Your task to perform on an android device: Search for Mexican restaurants on Maps Image 0: 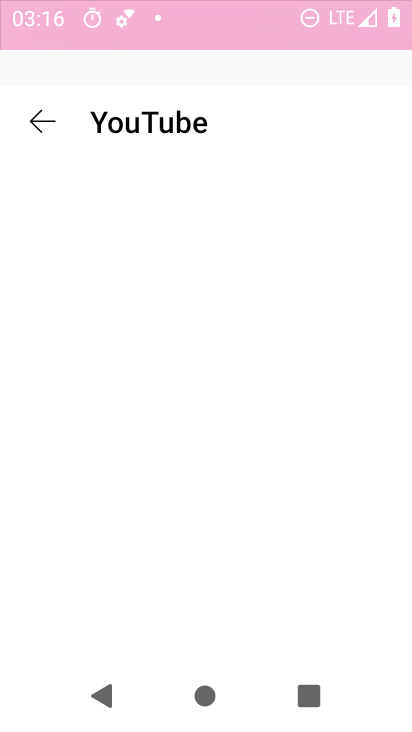
Step 0: drag from (277, 303) to (154, 17)
Your task to perform on an android device: Search for Mexican restaurants on Maps Image 1: 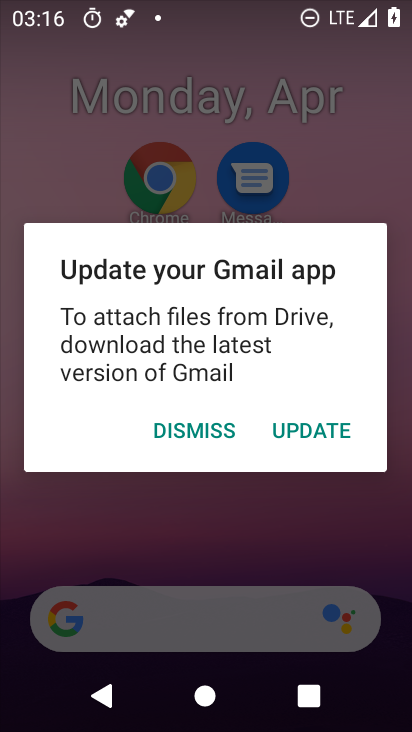
Step 1: press home button
Your task to perform on an android device: Search for Mexican restaurants on Maps Image 2: 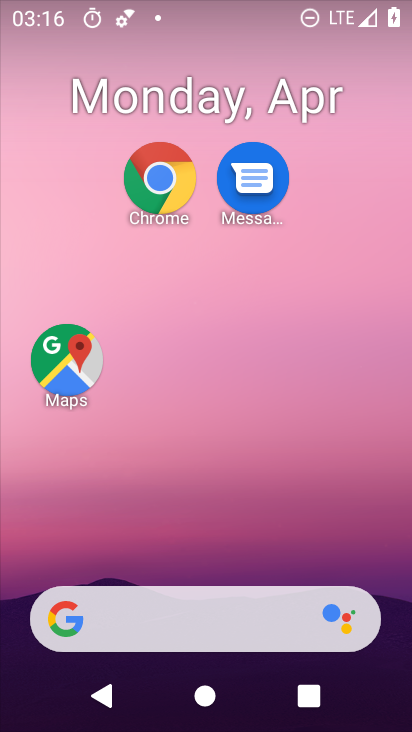
Step 2: drag from (224, 537) to (267, 38)
Your task to perform on an android device: Search for Mexican restaurants on Maps Image 3: 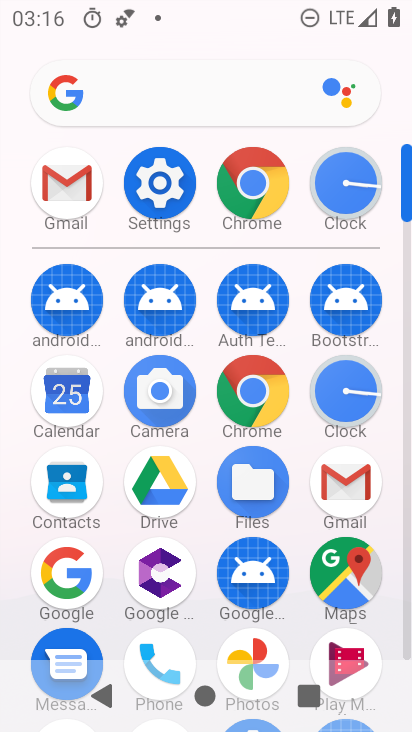
Step 3: click (251, 405)
Your task to perform on an android device: Search for Mexican restaurants on Maps Image 4: 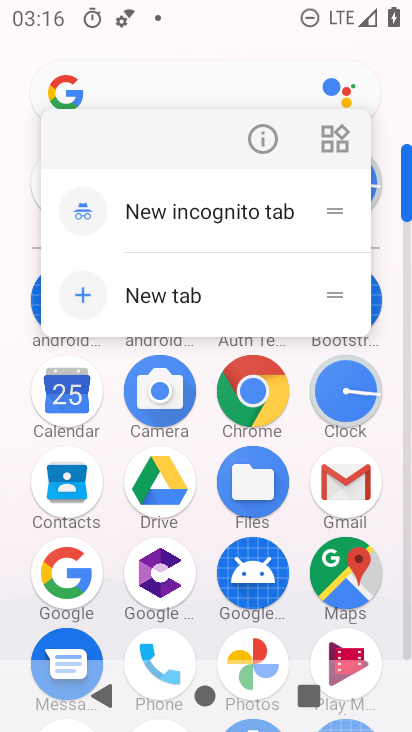
Step 4: click (259, 390)
Your task to perform on an android device: Search for Mexican restaurants on Maps Image 5: 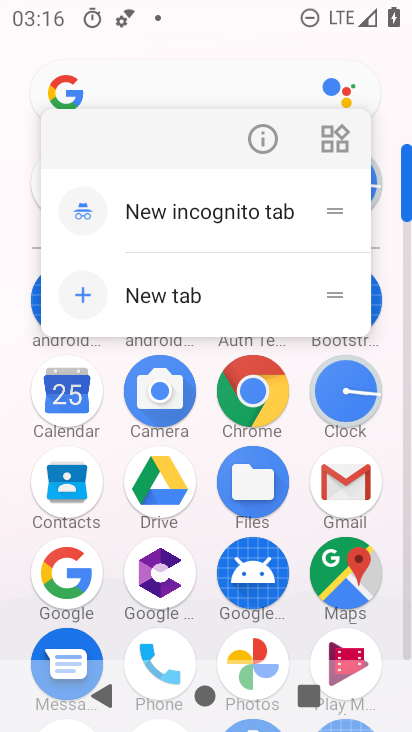
Step 5: click (259, 390)
Your task to perform on an android device: Search for Mexican restaurants on Maps Image 6: 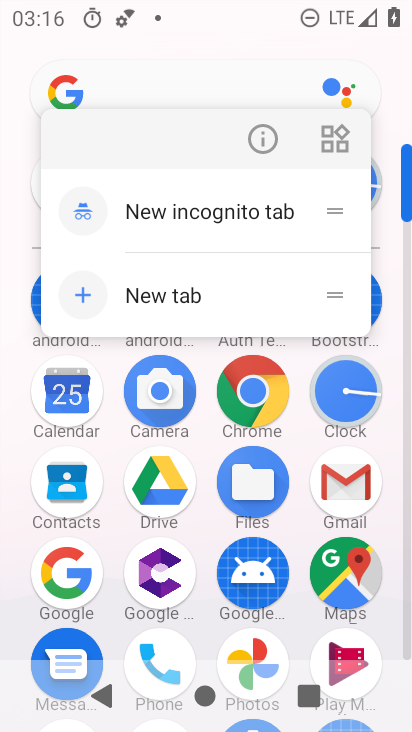
Step 6: click (269, 400)
Your task to perform on an android device: Search for Mexican restaurants on Maps Image 7: 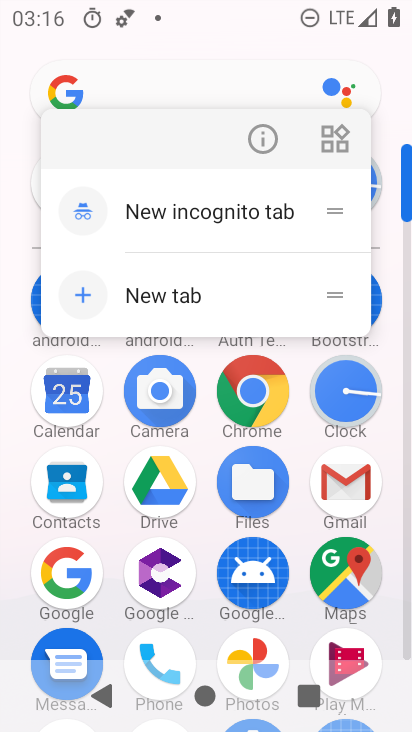
Step 7: click (269, 400)
Your task to perform on an android device: Search for Mexican restaurants on Maps Image 8: 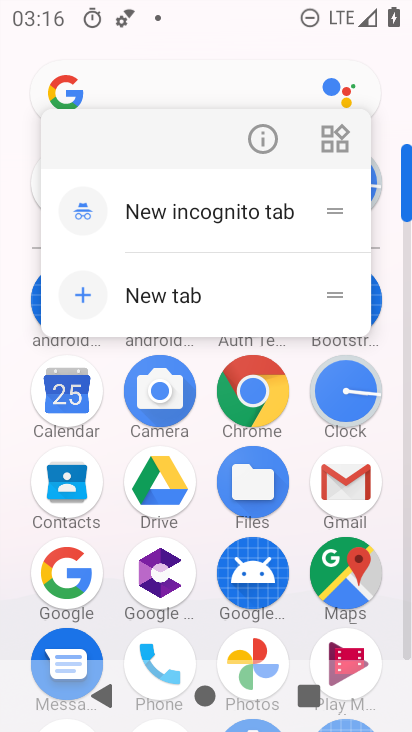
Step 8: click (269, 400)
Your task to perform on an android device: Search for Mexican restaurants on Maps Image 9: 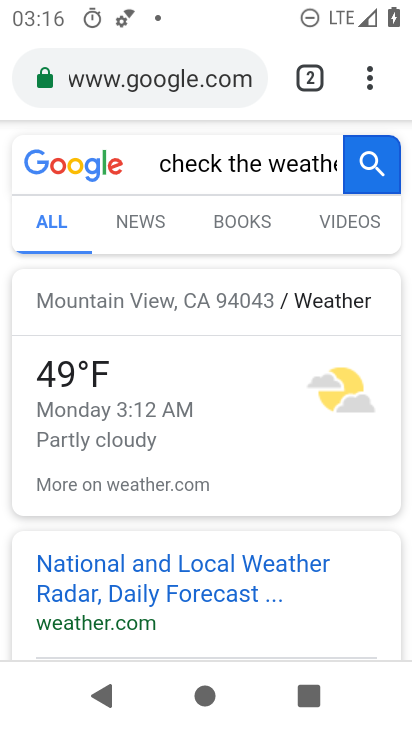
Step 9: press home button
Your task to perform on an android device: Search for Mexican restaurants on Maps Image 10: 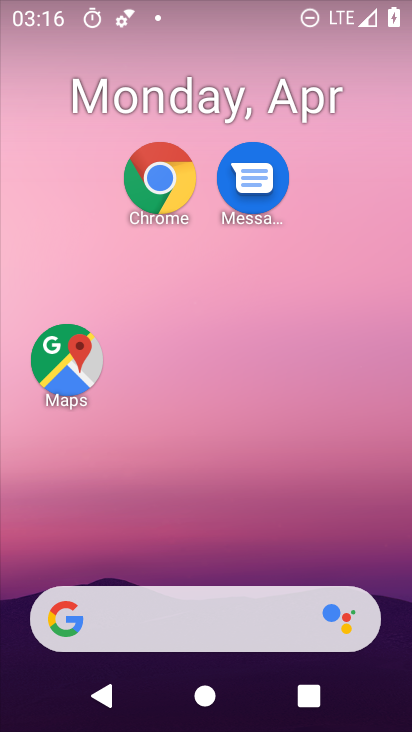
Step 10: drag from (201, 565) to (267, 0)
Your task to perform on an android device: Search for Mexican restaurants on Maps Image 11: 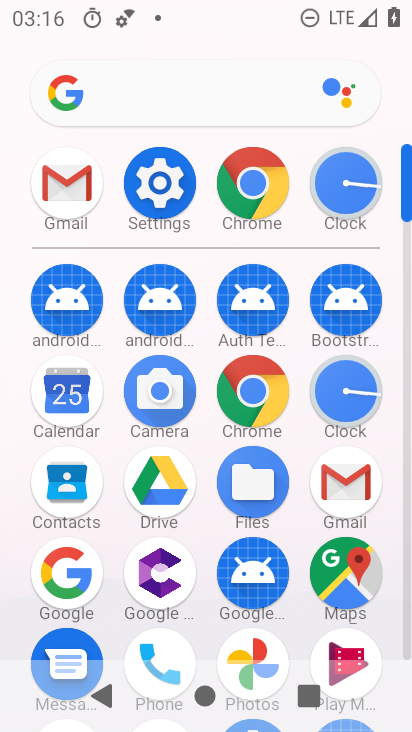
Step 11: click (348, 562)
Your task to perform on an android device: Search for Mexican restaurants on Maps Image 12: 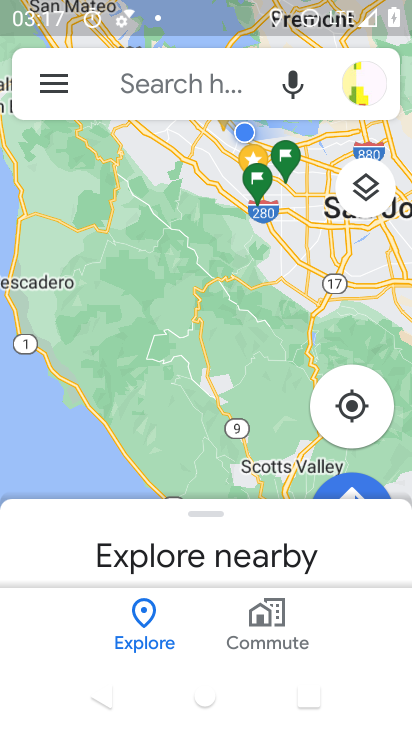
Step 12: click (234, 80)
Your task to perform on an android device: Search for Mexican restaurants on Maps Image 13: 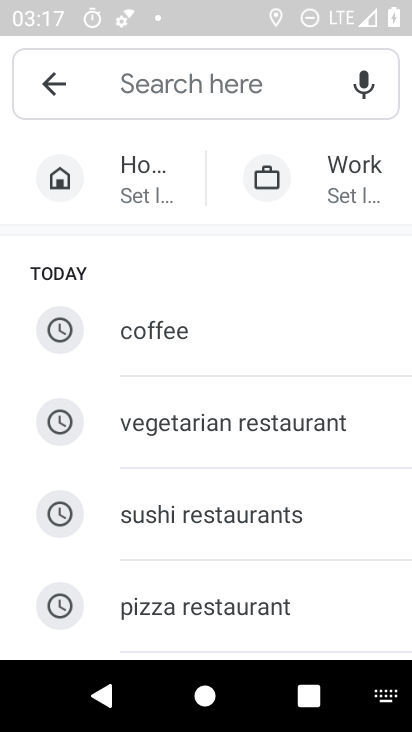
Step 13: type "mexican restaurant"
Your task to perform on an android device: Search for Mexican restaurants on Maps Image 14: 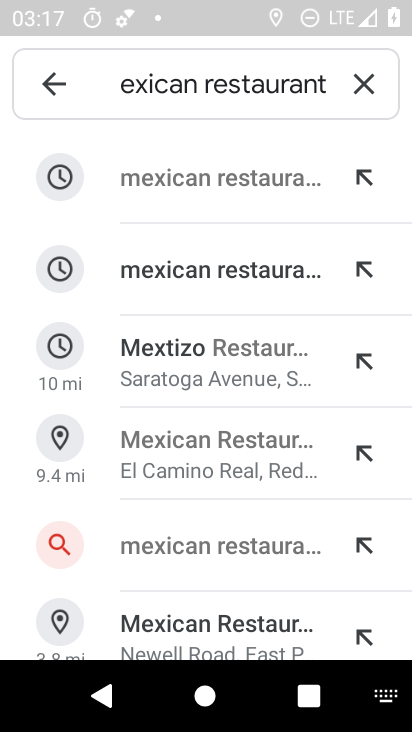
Step 14: click (198, 194)
Your task to perform on an android device: Search for Mexican restaurants on Maps Image 15: 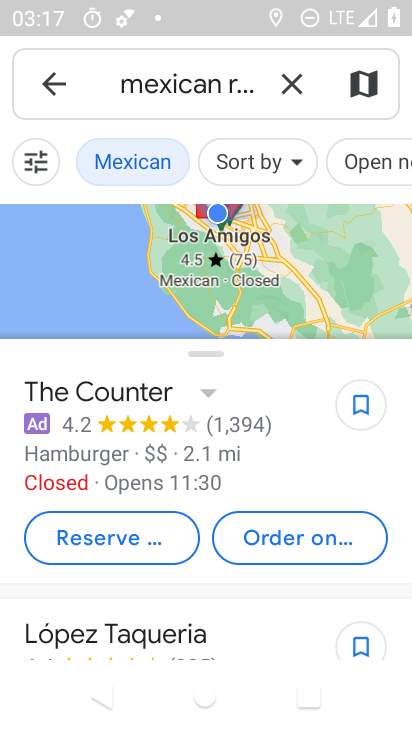
Step 15: task complete